Your task to perform on an android device: Go to Google Image 0: 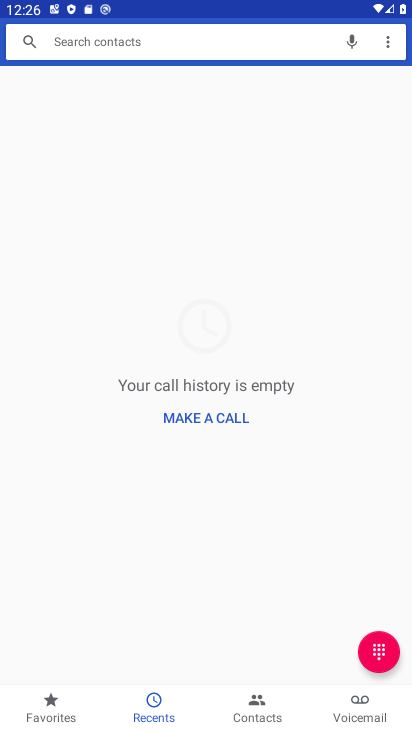
Step 0: press home button
Your task to perform on an android device: Go to Google Image 1: 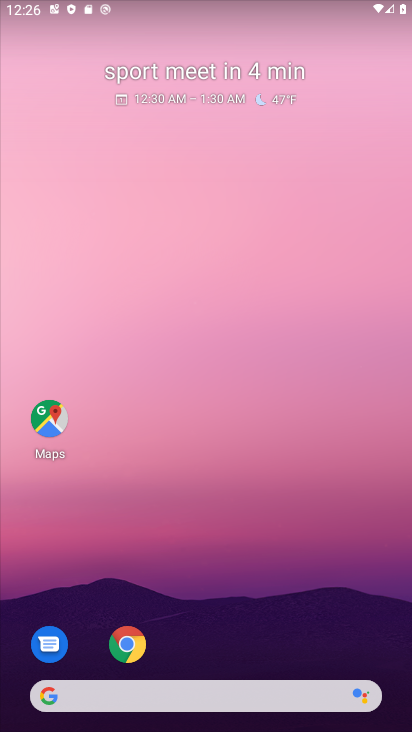
Step 1: click (44, 697)
Your task to perform on an android device: Go to Google Image 2: 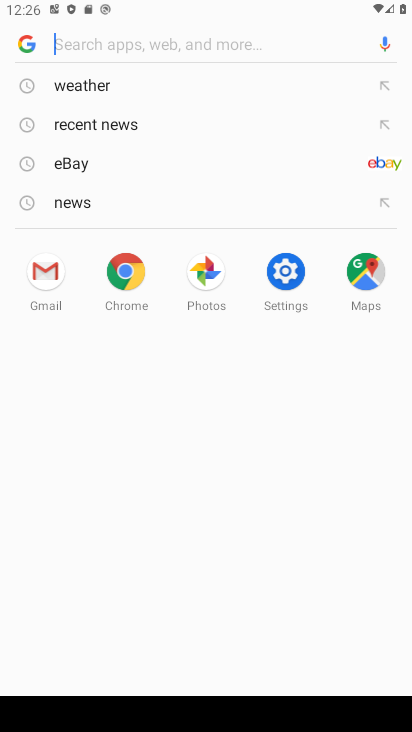
Step 2: click (38, 44)
Your task to perform on an android device: Go to Google Image 3: 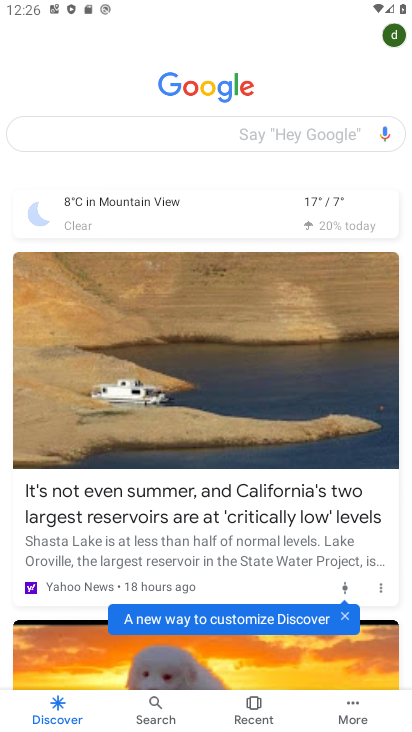
Step 3: task complete